Your task to perform on an android device: turn on the 24-hour format for clock Image 0: 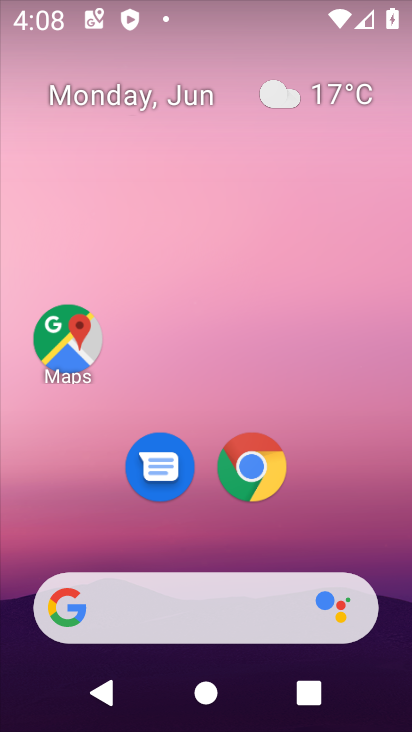
Step 0: drag from (217, 527) to (275, 180)
Your task to perform on an android device: turn on the 24-hour format for clock Image 1: 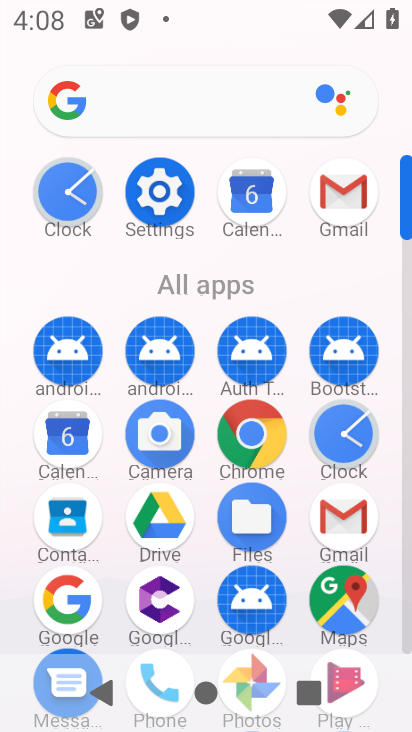
Step 1: click (161, 195)
Your task to perform on an android device: turn on the 24-hour format for clock Image 2: 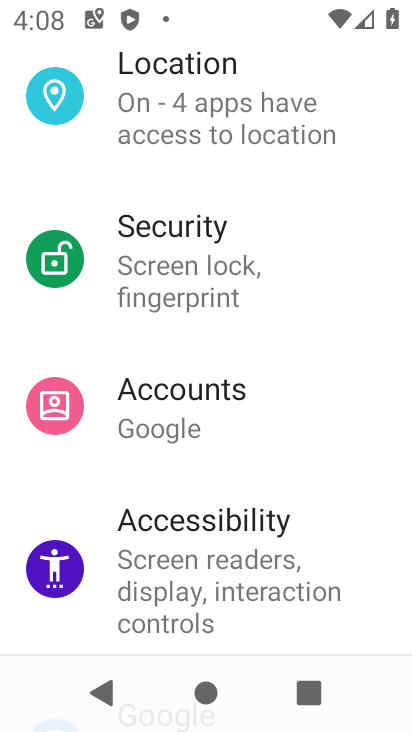
Step 2: drag from (214, 505) to (241, 228)
Your task to perform on an android device: turn on the 24-hour format for clock Image 3: 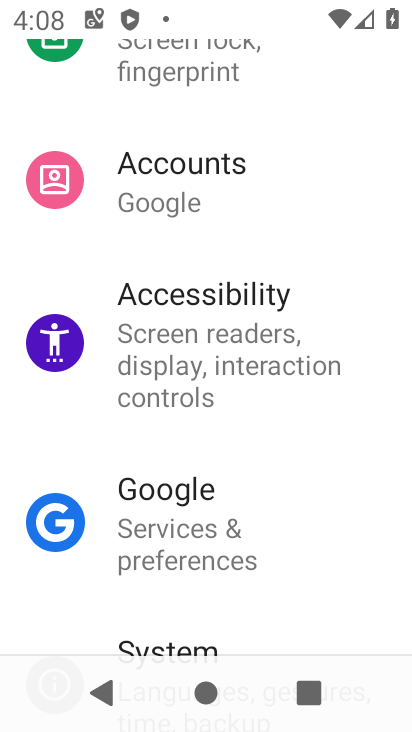
Step 3: drag from (234, 461) to (276, 218)
Your task to perform on an android device: turn on the 24-hour format for clock Image 4: 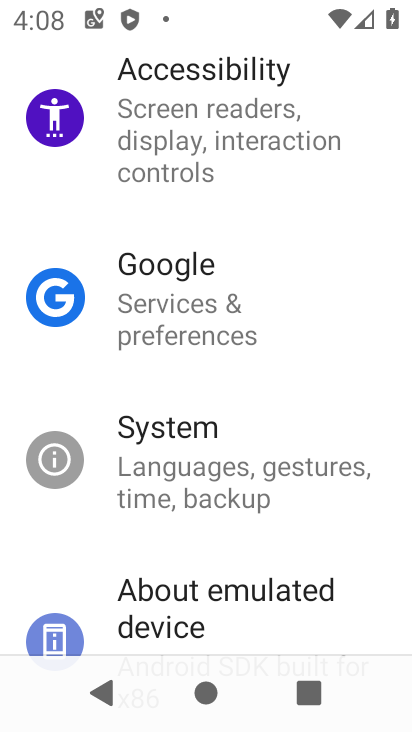
Step 4: drag from (269, 453) to (343, 25)
Your task to perform on an android device: turn on the 24-hour format for clock Image 5: 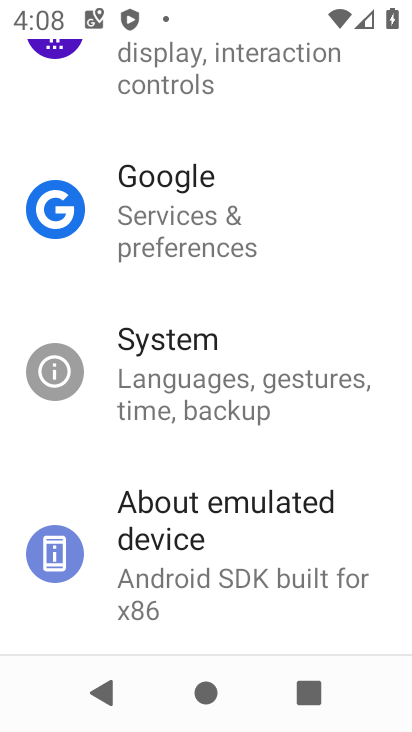
Step 5: drag from (192, 559) to (251, 233)
Your task to perform on an android device: turn on the 24-hour format for clock Image 6: 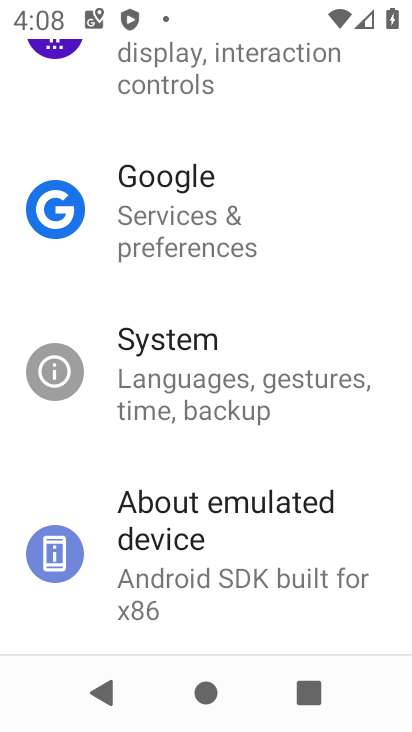
Step 6: click (188, 383)
Your task to perform on an android device: turn on the 24-hour format for clock Image 7: 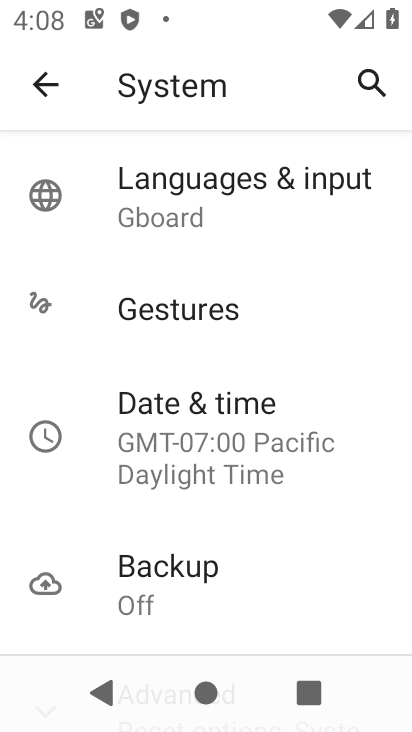
Step 7: click (223, 435)
Your task to perform on an android device: turn on the 24-hour format for clock Image 8: 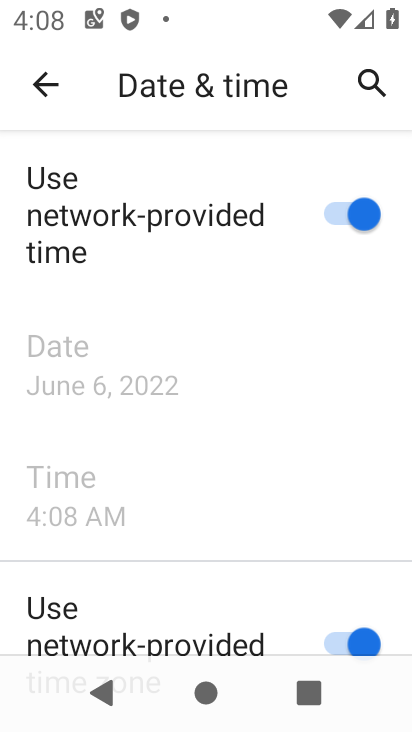
Step 8: drag from (245, 477) to (254, 55)
Your task to perform on an android device: turn on the 24-hour format for clock Image 9: 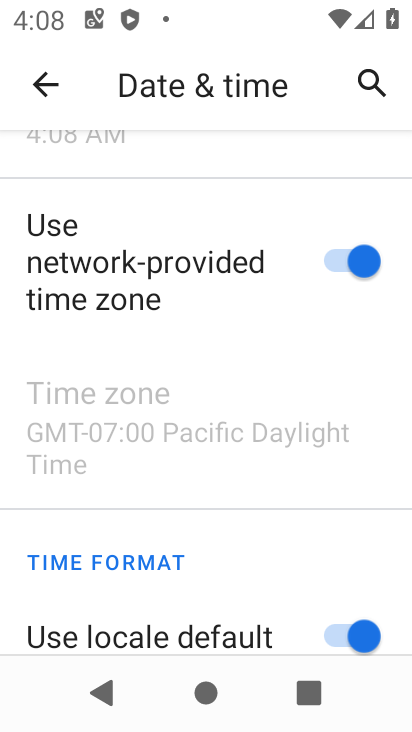
Step 9: drag from (310, 480) to (340, 77)
Your task to perform on an android device: turn on the 24-hour format for clock Image 10: 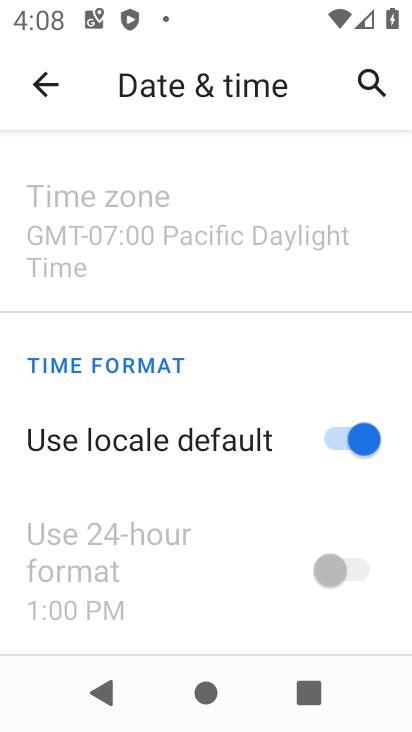
Step 10: drag from (343, 556) to (371, 349)
Your task to perform on an android device: turn on the 24-hour format for clock Image 11: 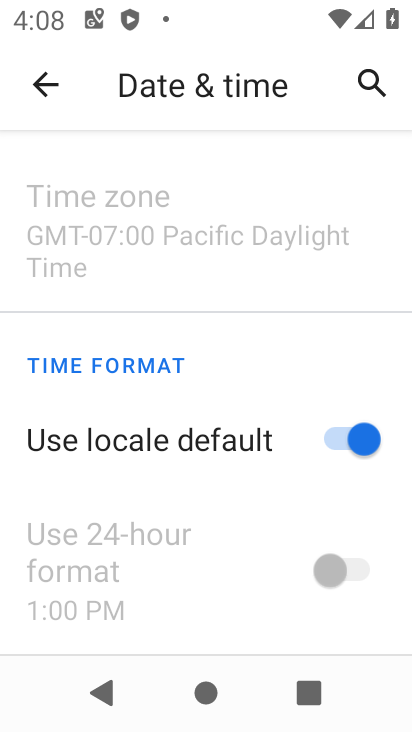
Step 11: click (329, 448)
Your task to perform on an android device: turn on the 24-hour format for clock Image 12: 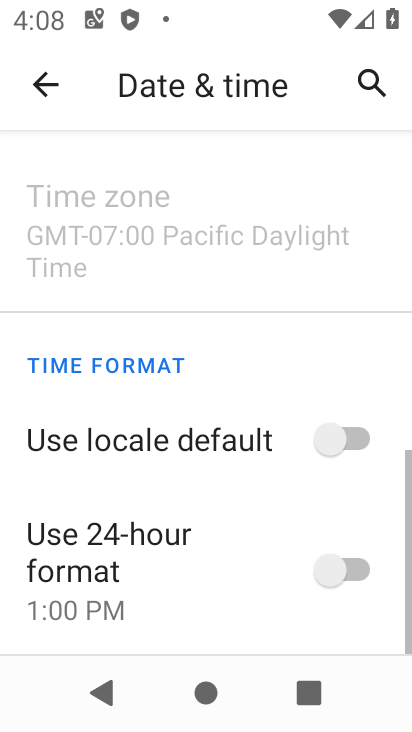
Step 12: click (355, 554)
Your task to perform on an android device: turn on the 24-hour format for clock Image 13: 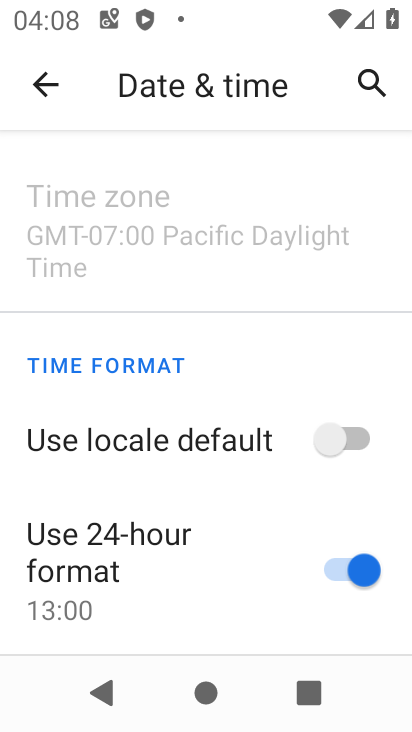
Step 13: task complete